Your task to perform on an android device: open sync settings in chrome Image 0: 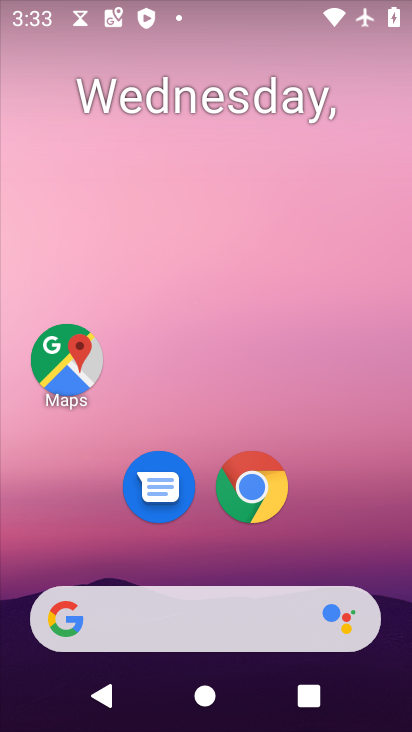
Step 0: drag from (377, 596) to (410, 110)
Your task to perform on an android device: open sync settings in chrome Image 1: 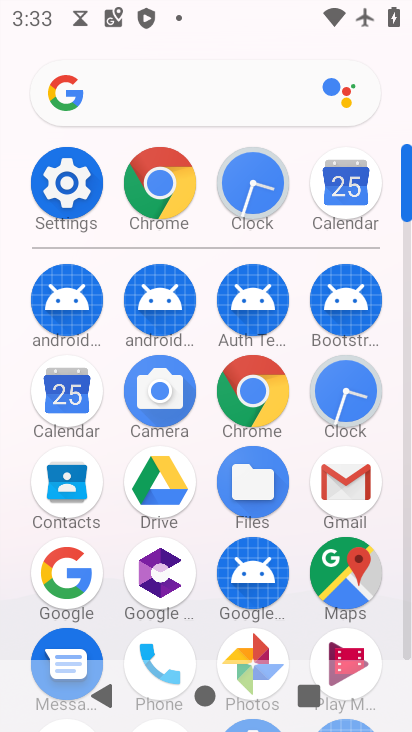
Step 1: click (176, 196)
Your task to perform on an android device: open sync settings in chrome Image 2: 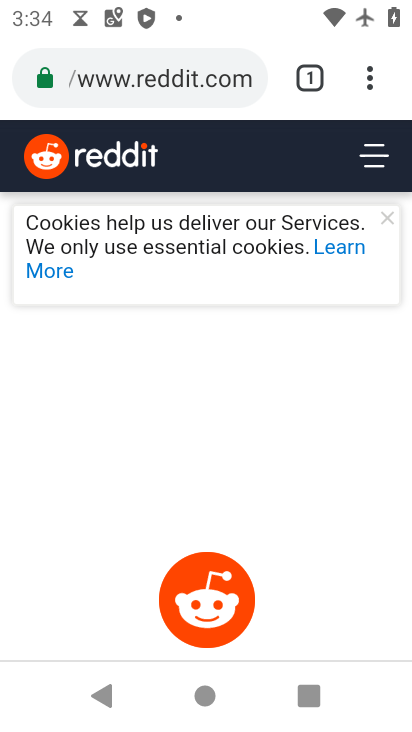
Step 2: click (363, 87)
Your task to perform on an android device: open sync settings in chrome Image 3: 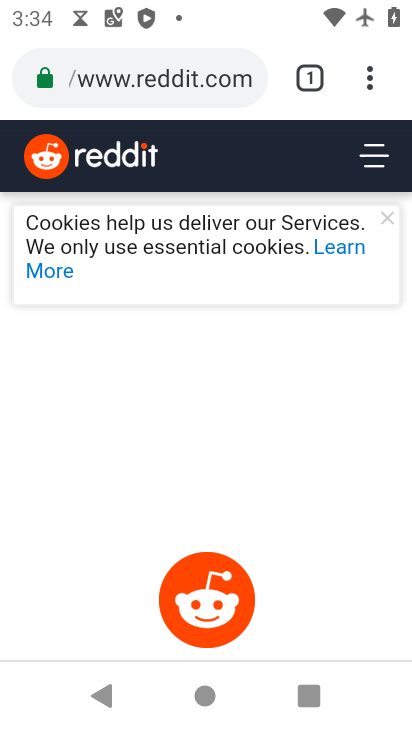
Step 3: drag from (372, 101) to (130, 555)
Your task to perform on an android device: open sync settings in chrome Image 4: 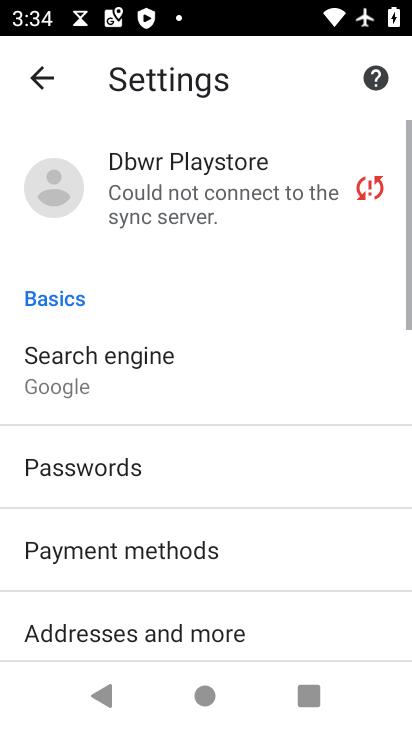
Step 4: drag from (130, 547) to (124, 168)
Your task to perform on an android device: open sync settings in chrome Image 5: 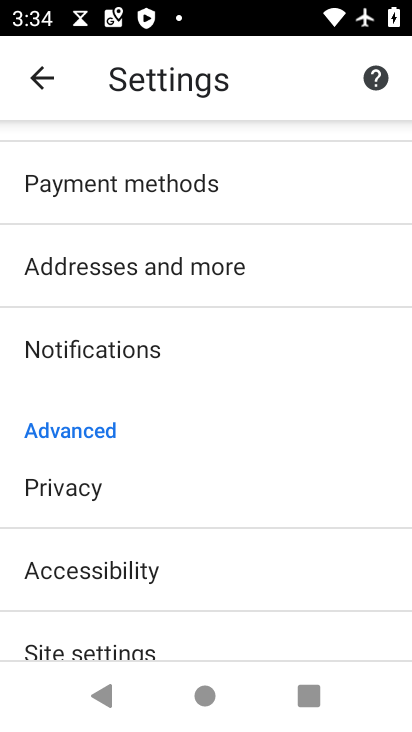
Step 5: drag from (71, 625) to (138, 218)
Your task to perform on an android device: open sync settings in chrome Image 6: 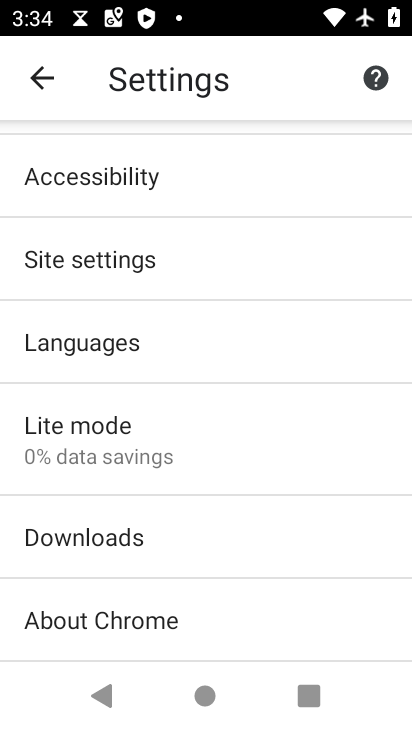
Step 6: click (118, 285)
Your task to perform on an android device: open sync settings in chrome Image 7: 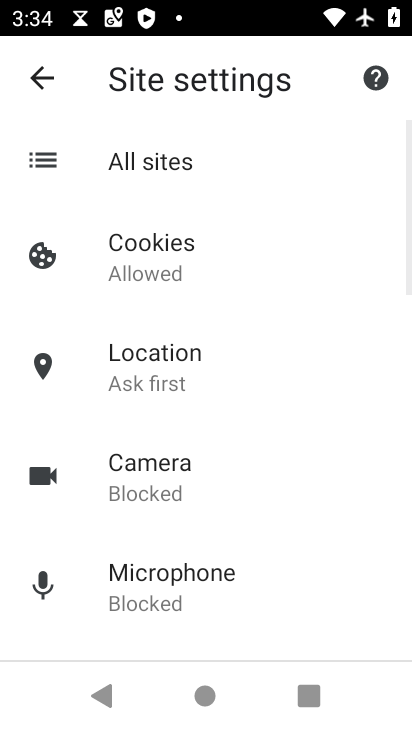
Step 7: drag from (149, 623) to (188, 232)
Your task to perform on an android device: open sync settings in chrome Image 8: 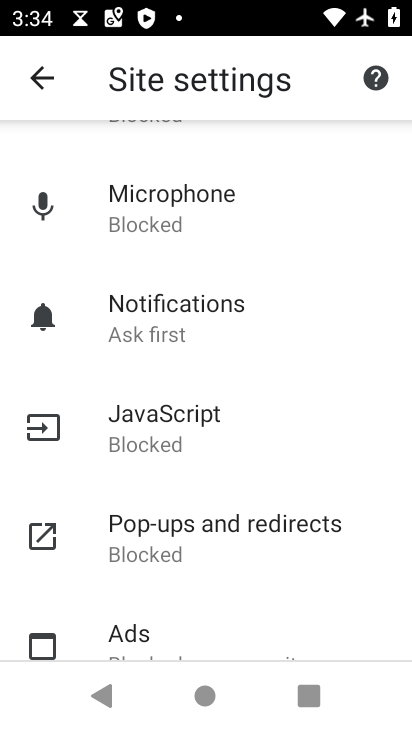
Step 8: drag from (150, 617) to (237, 234)
Your task to perform on an android device: open sync settings in chrome Image 9: 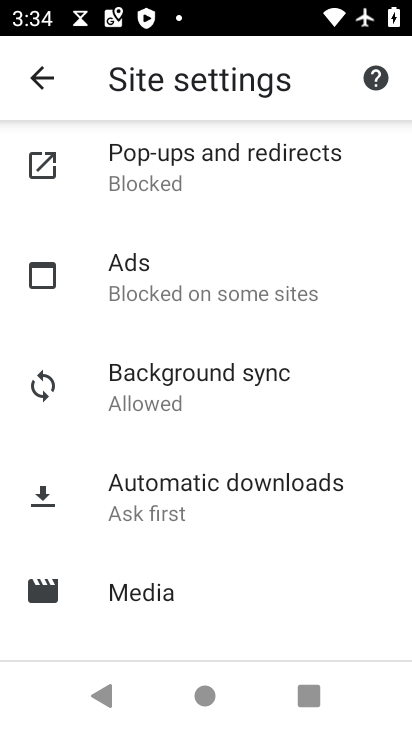
Step 9: click (187, 439)
Your task to perform on an android device: open sync settings in chrome Image 10: 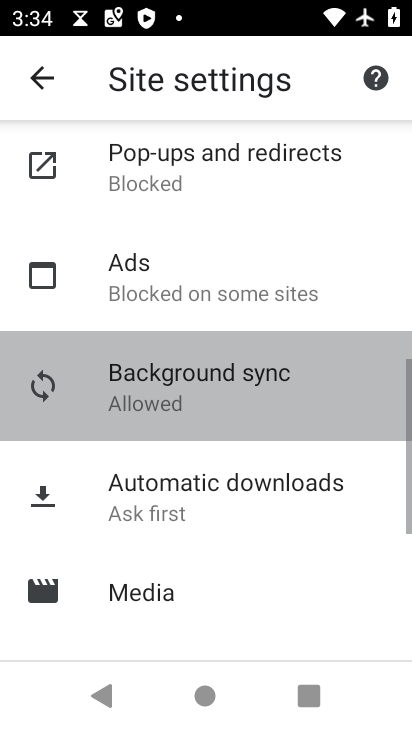
Step 10: click (183, 419)
Your task to perform on an android device: open sync settings in chrome Image 11: 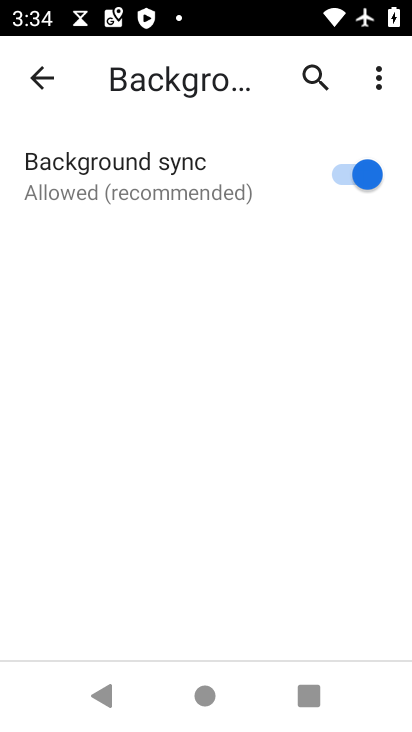
Step 11: task complete